Your task to perform on an android device: turn on bluetooth scan Image 0: 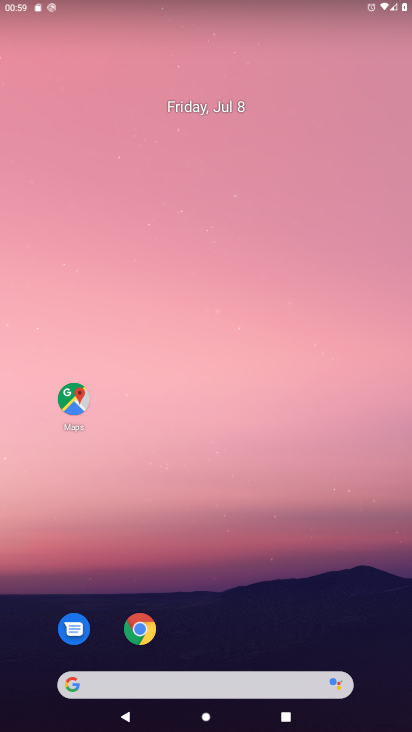
Step 0: drag from (303, 559) to (347, 117)
Your task to perform on an android device: turn on bluetooth scan Image 1: 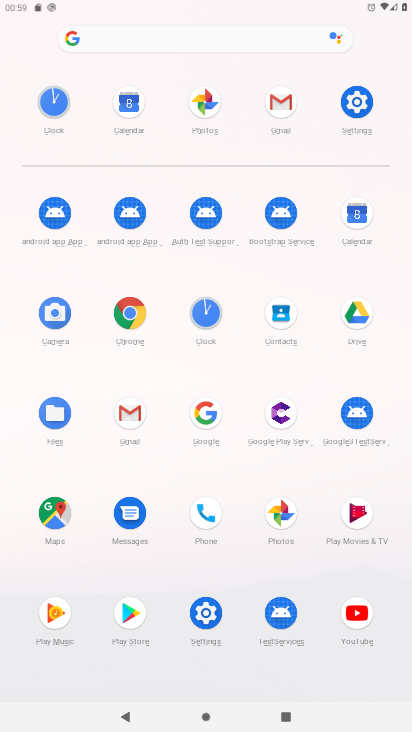
Step 1: click (363, 106)
Your task to perform on an android device: turn on bluetooth scan Image 2: 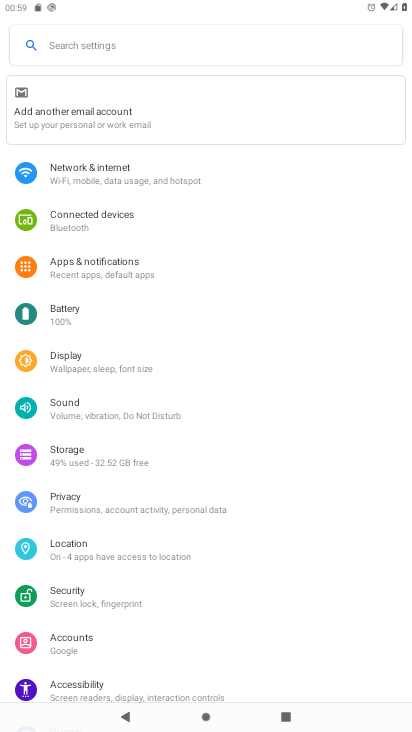
Step 2: click (56, 539)
Your task to perform on an android device: turn on bluetooth scan Image 3: 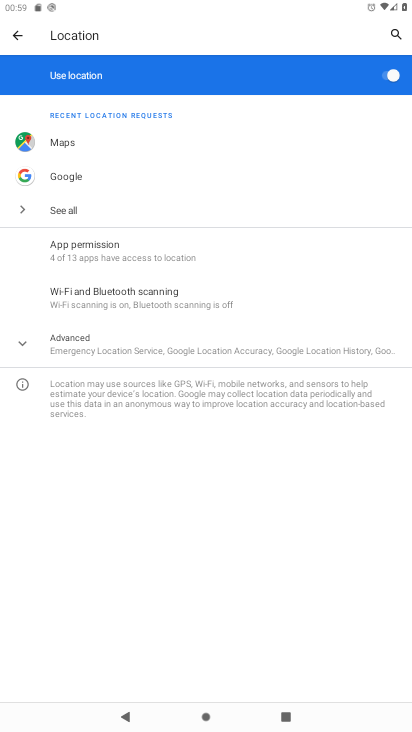
Step 3: click (170, 308)
Your task to perform on an android device: turn on bluetooth scan Image 4: 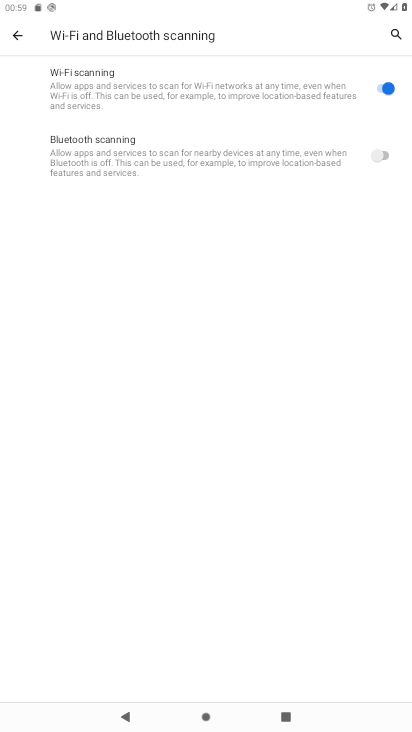
Step 4: click (380, 148)
Your task to perform on an android device: turn on bluetooth scan Image 5: 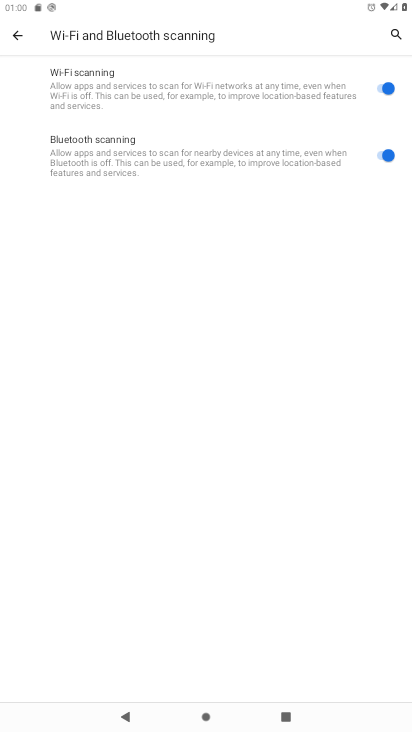
Step 5: task complete